Your task to perform on an android device: uninstall "Google Home" Image 0: 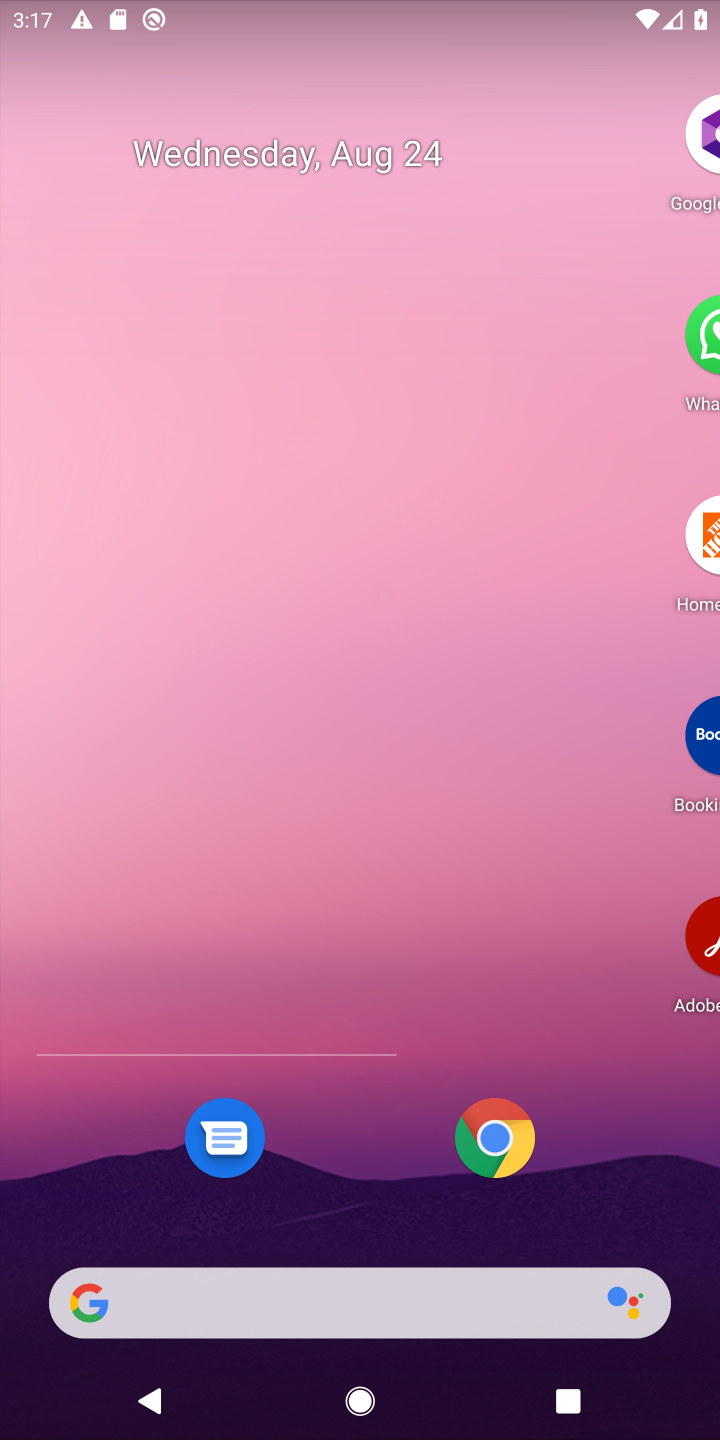
Step 0: press home button
Your task to perform on an android device: uninstall "Google Home" Image 1: 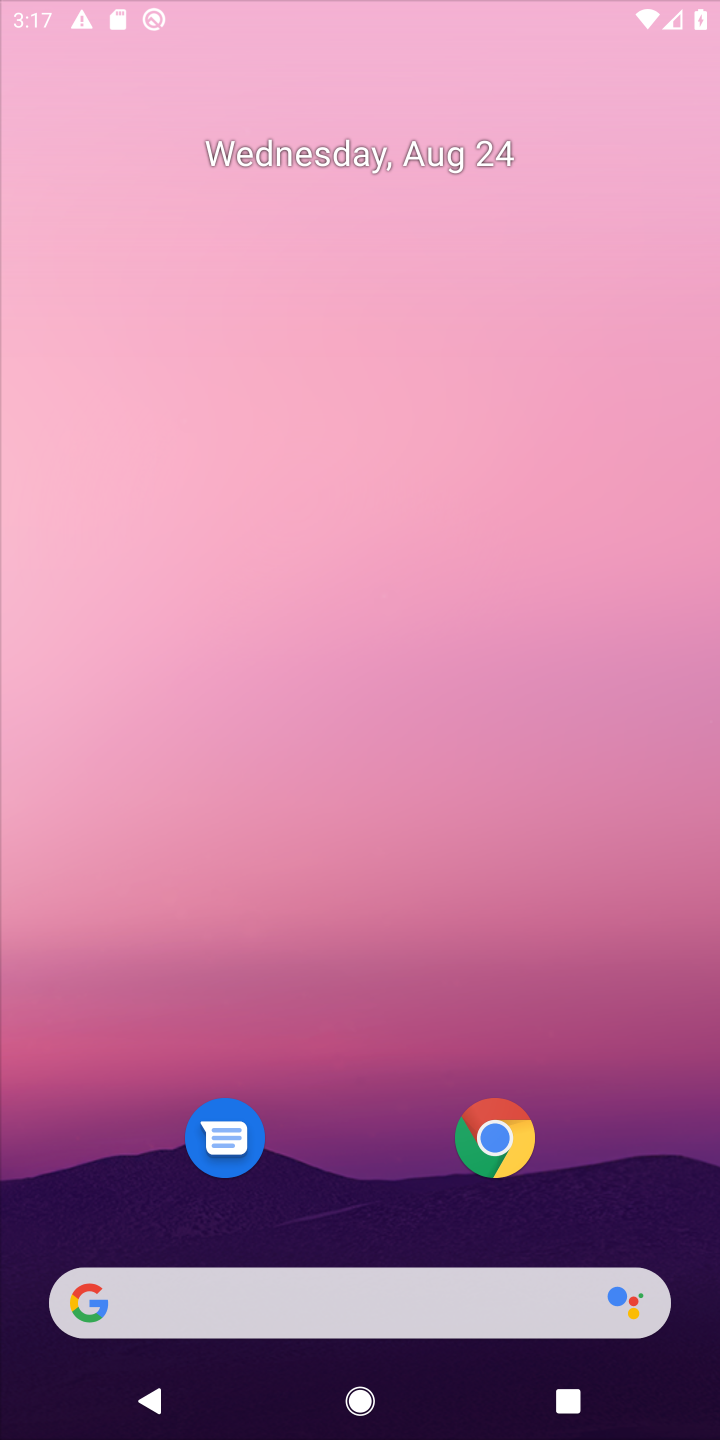
Step 1: press home button
Your task to perform on an android device: uninstall "Google Home" Image 2: 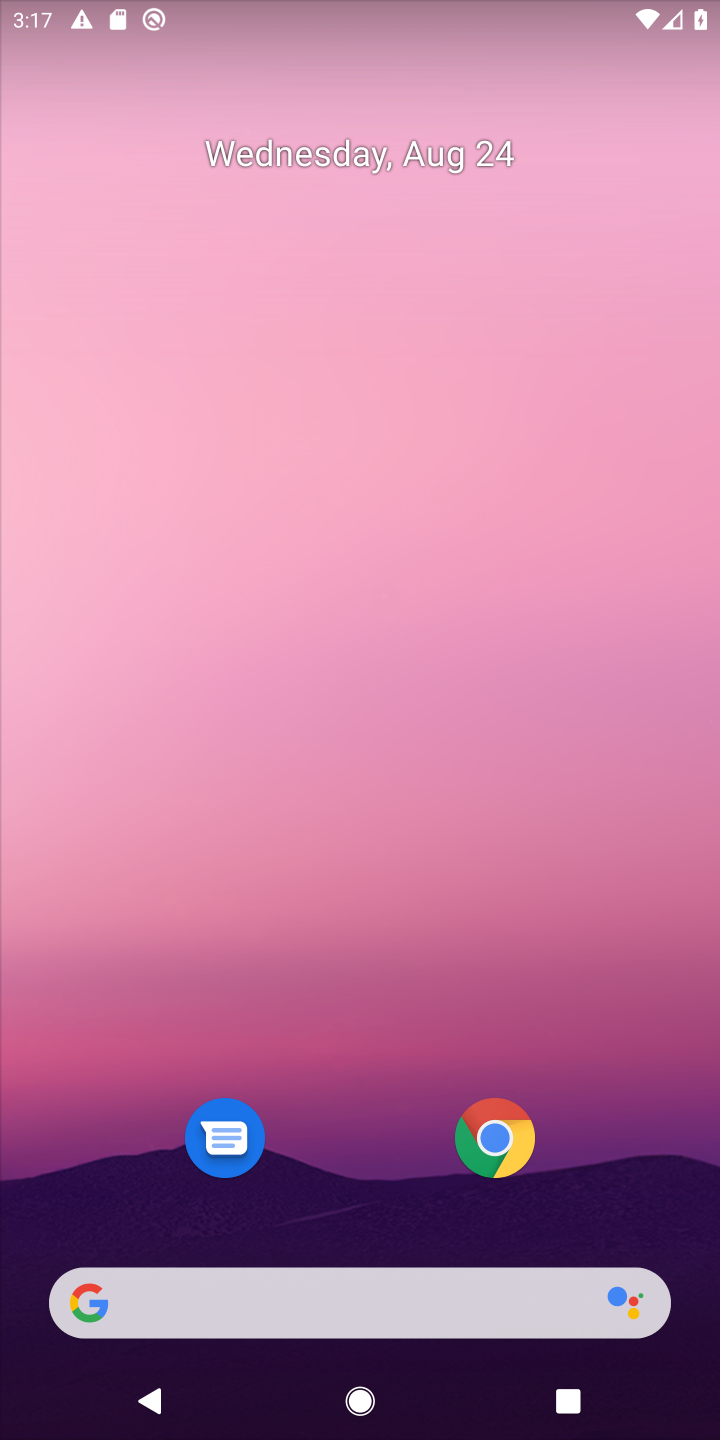
Step 2: drag from (339, 1157) to (375, 30)
Your task to perform on an android device: uninstall "Google Home" Image 3: 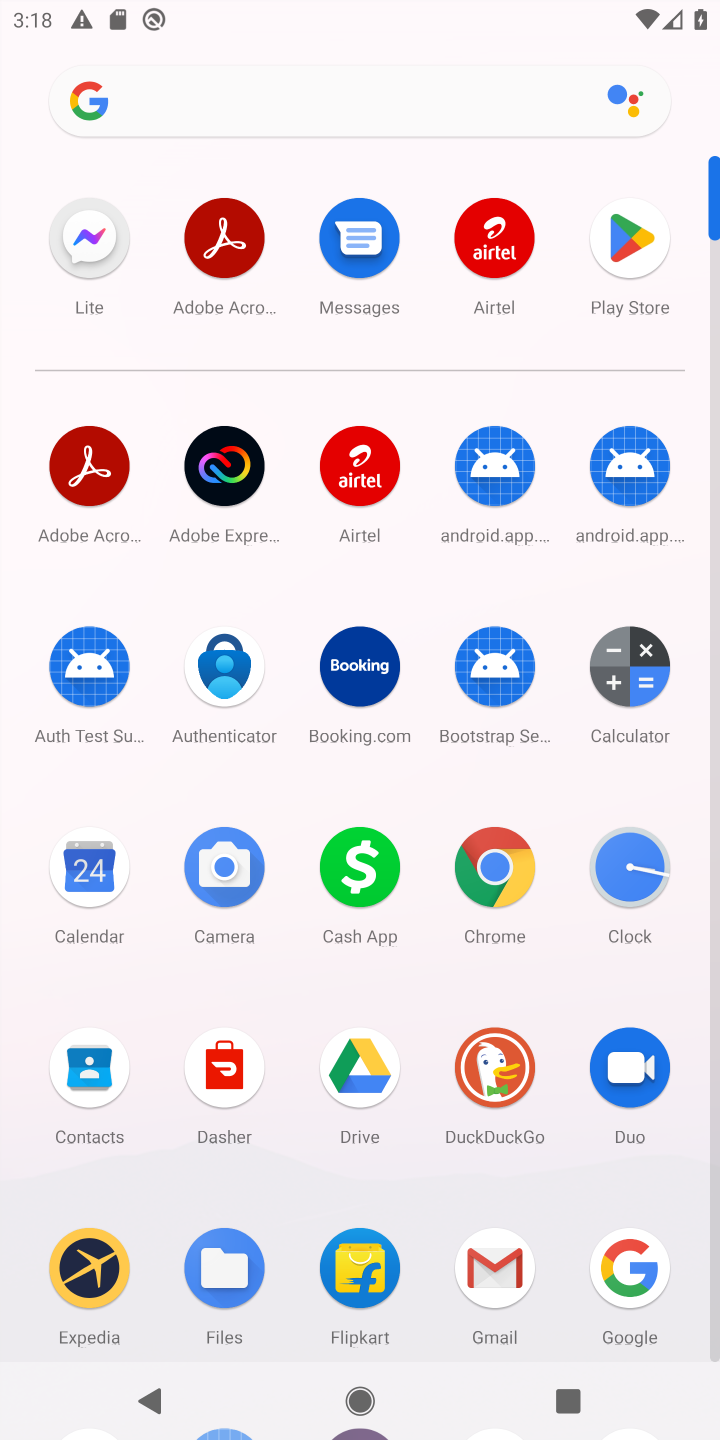
Step 3: click (626, 234)
Your task to perform on an android device: uninstall "Google Home" Image 4: 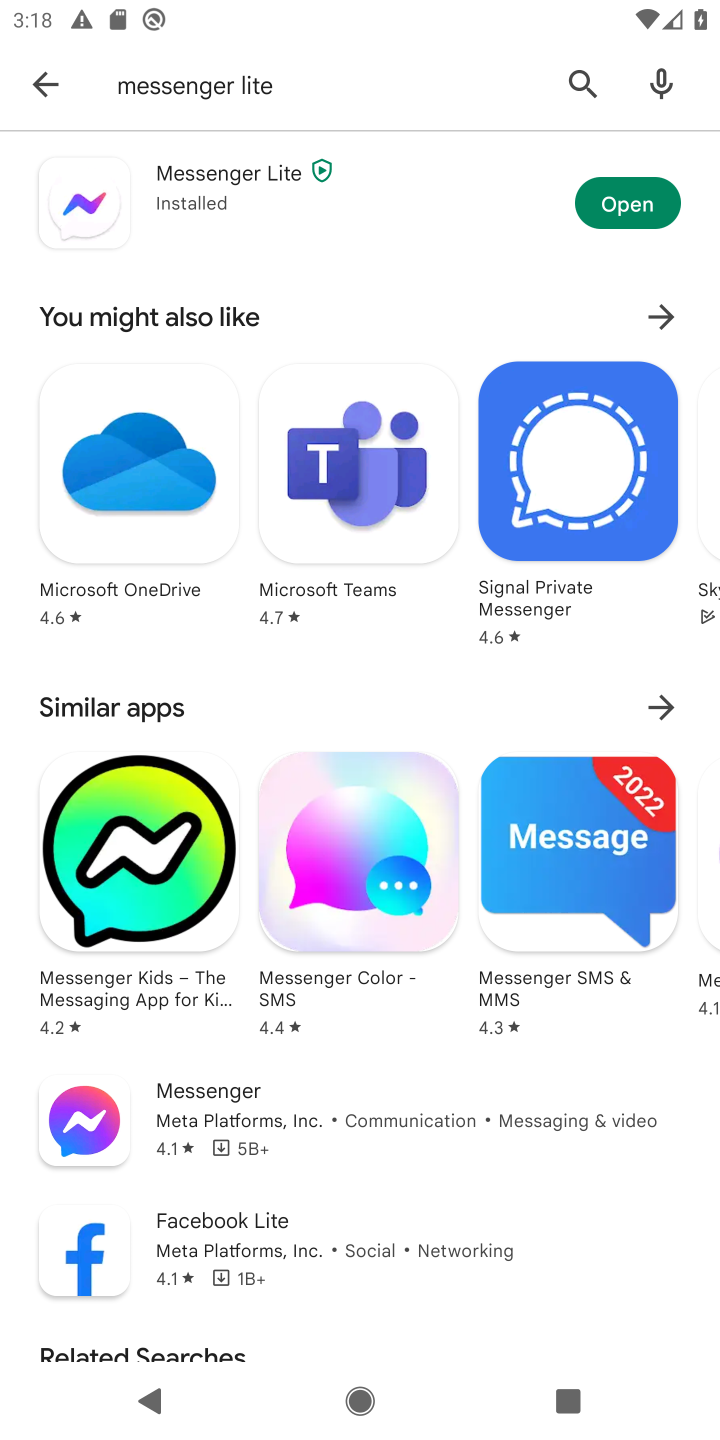
Step 4: click (576, 81)
Your task to perform on an android device: uninstall "Google Home" Image 5: 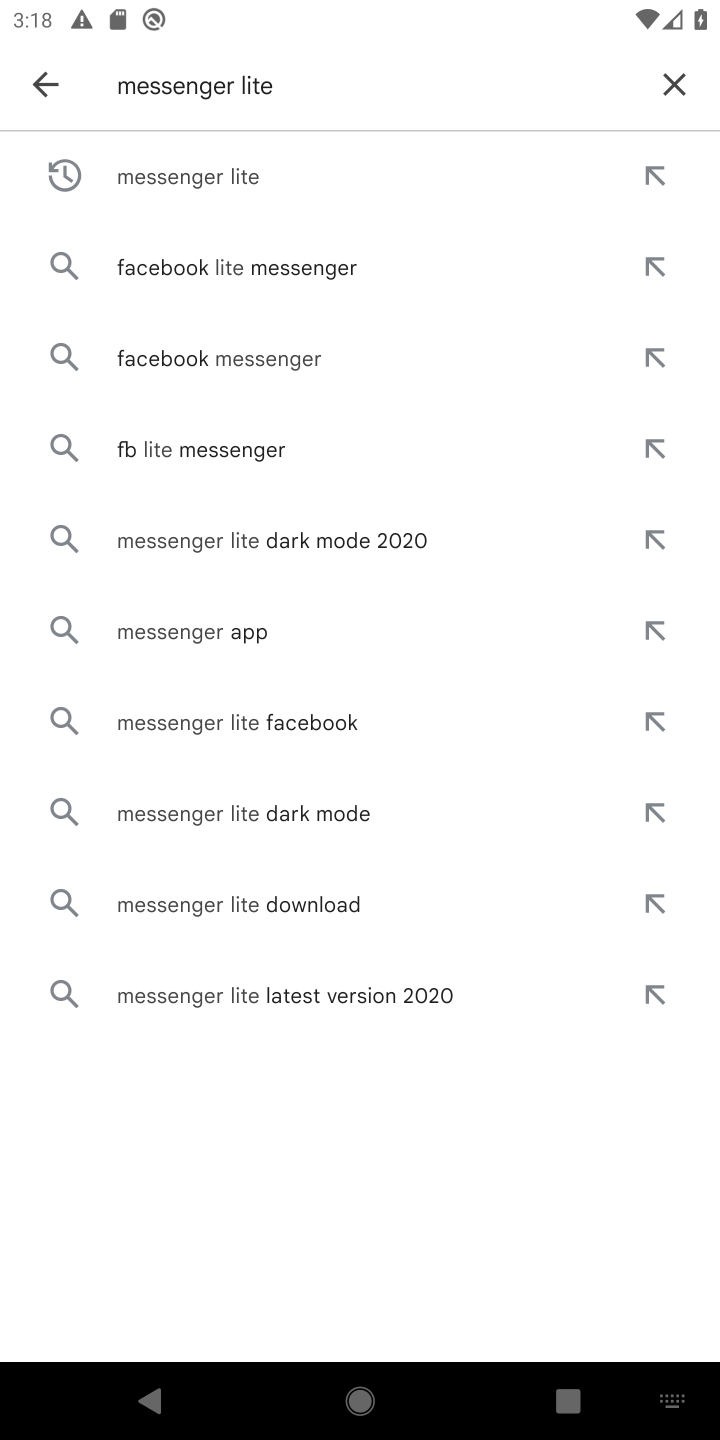
Step 5: click (674, 77)
Your task to perform on an android device: uninstall "Google Home" Image 6: 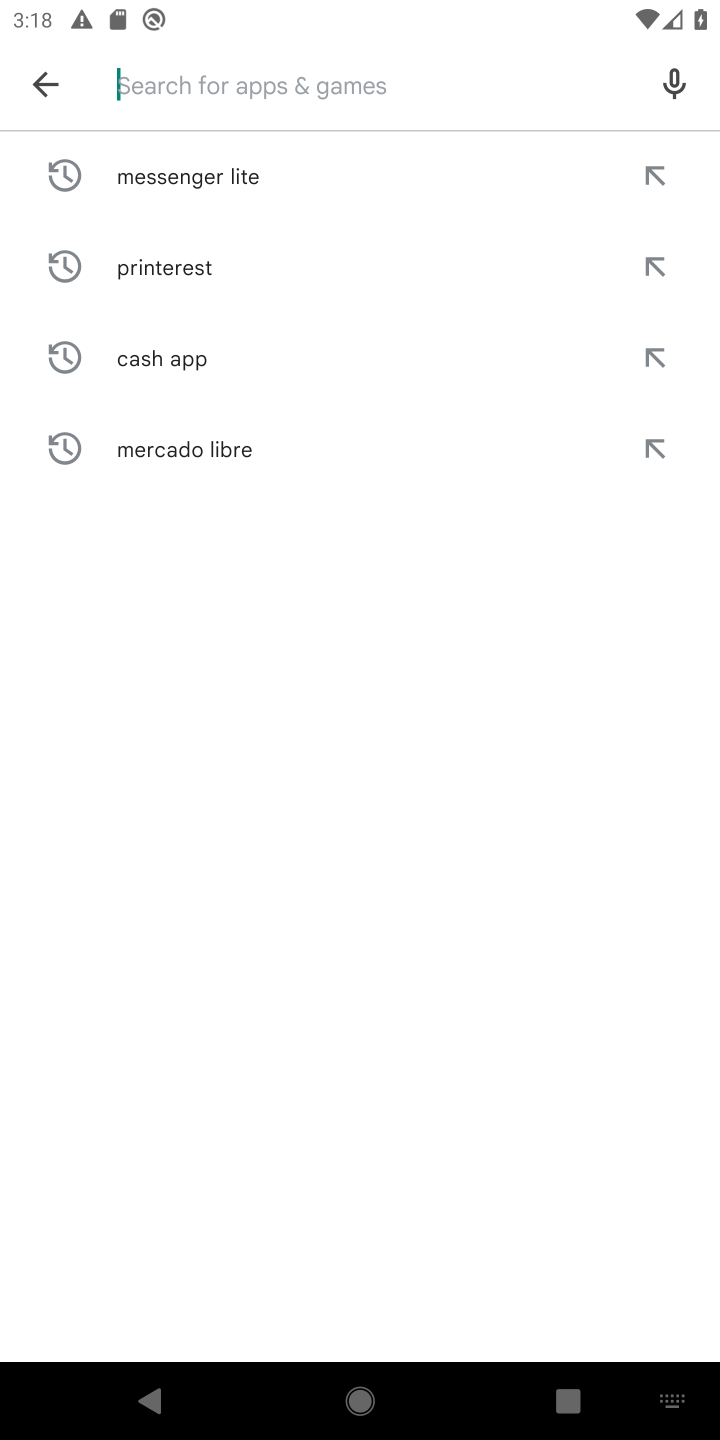
Step 6: type "Google Home"
Your task to perform on an android device: uninstall "Google Home" Image 7: 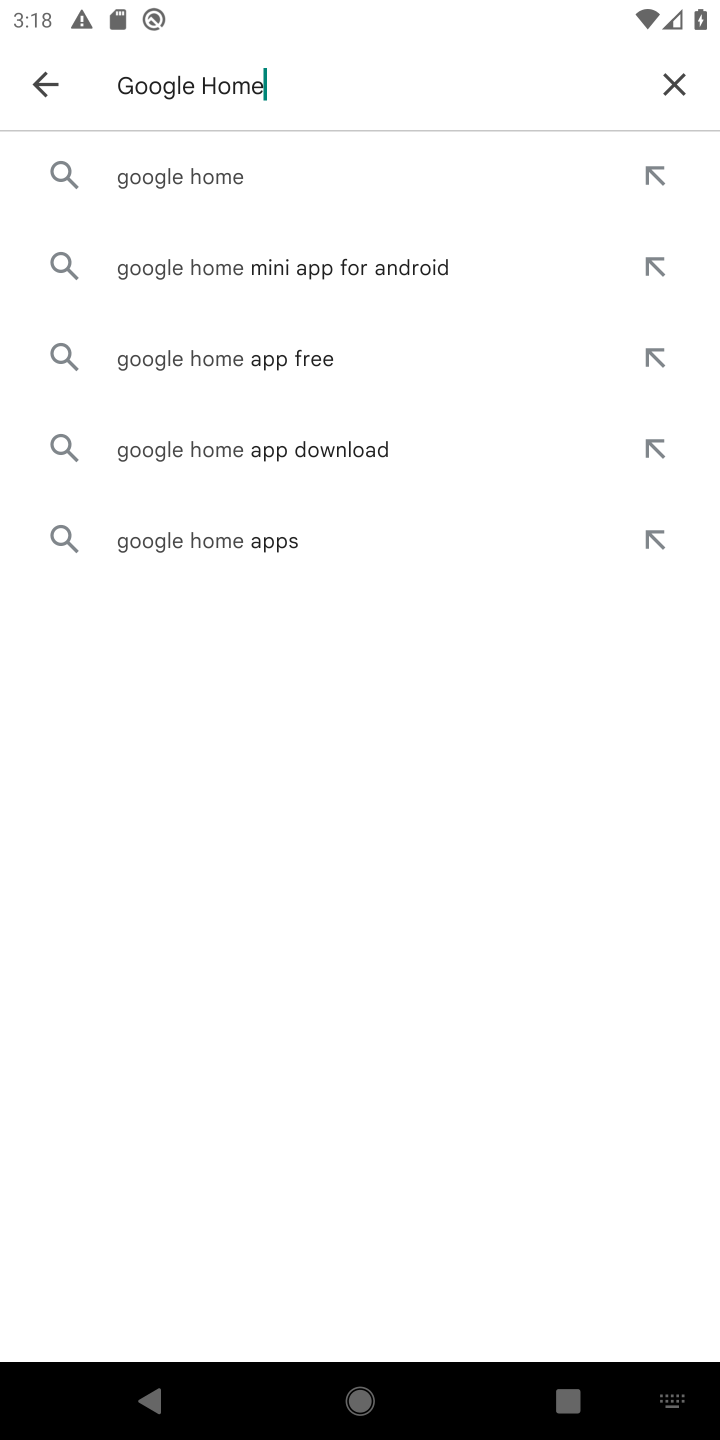
Step 7: click (175, 178)
Your task to perform on an android device: uninstall "Google Home" Image 8: 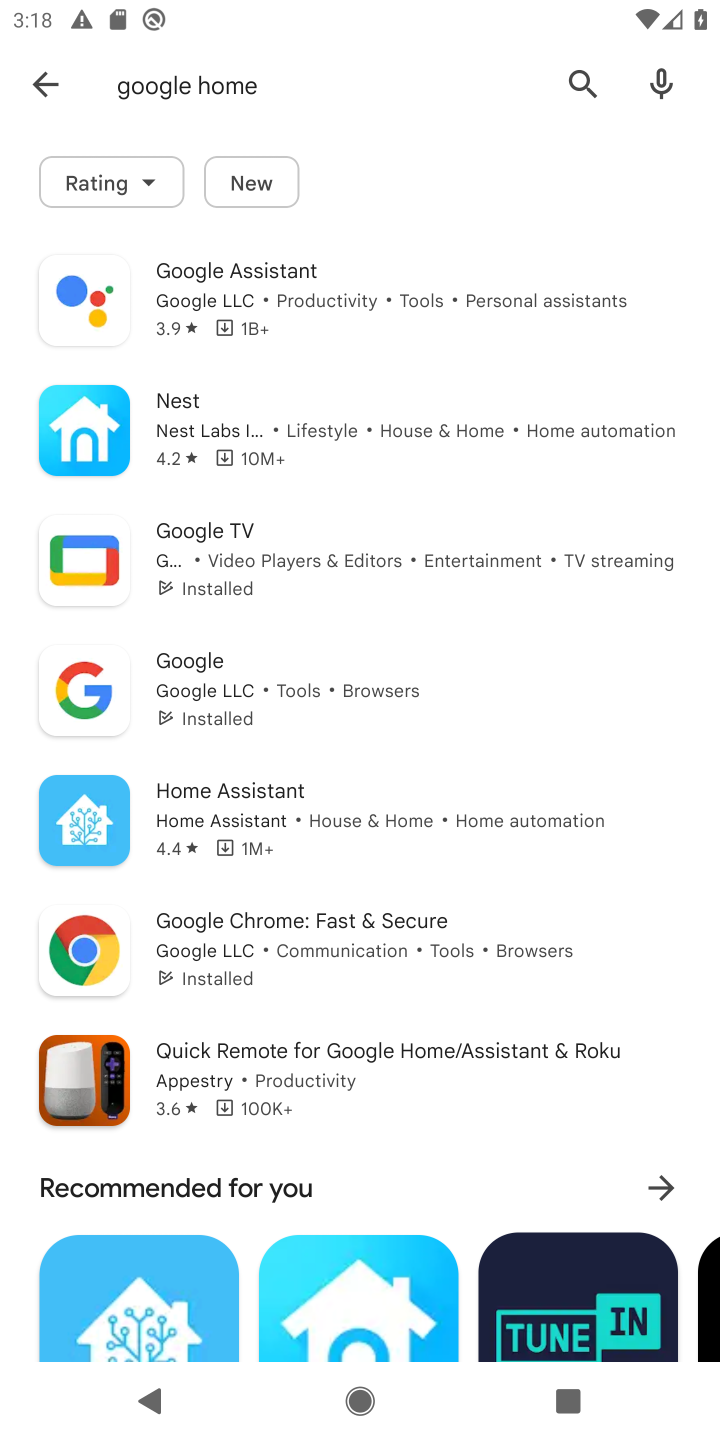
Step 8: task complete